Your task to perform on an android device: Open Chrome and go to settings Image 0: 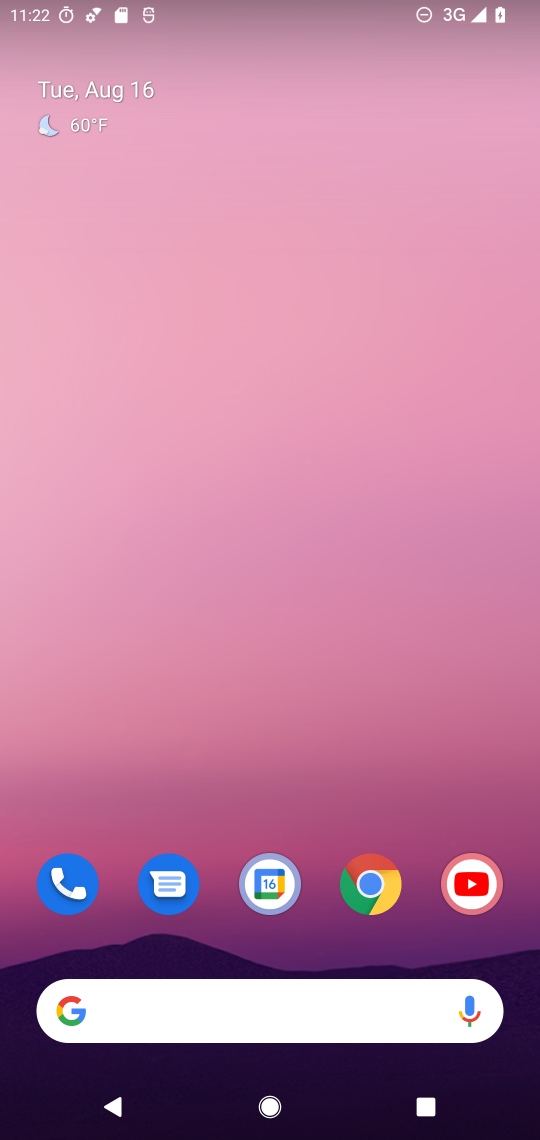
Step 0: click (365, 879)
Your task to perform on an android device: Open Chrome and go to settings Image 1: 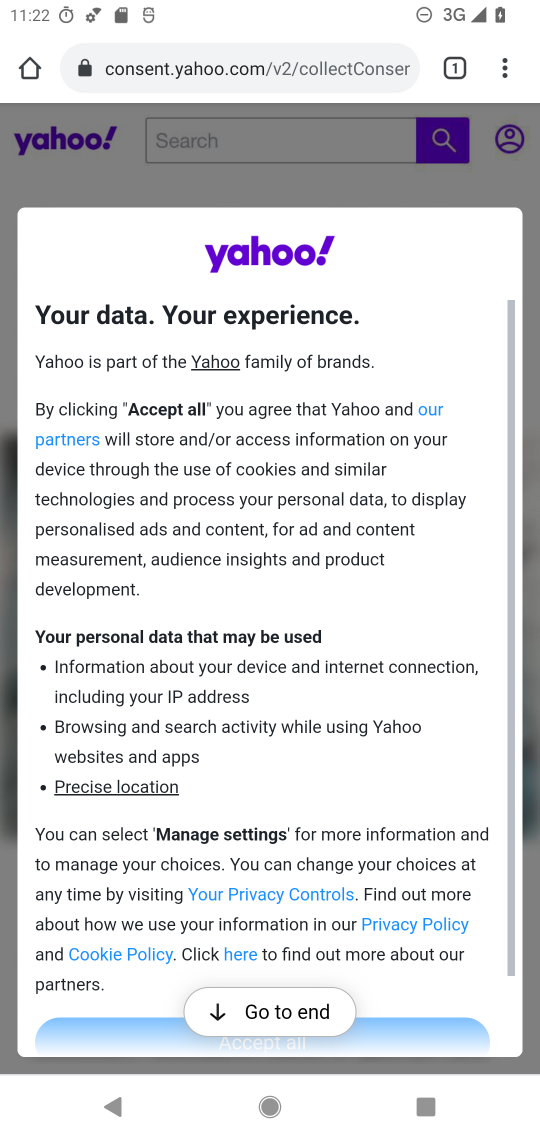
Step 1: click (502, 73)
Your task to perform on an android device: Open Chrome and go to settings Image 2: 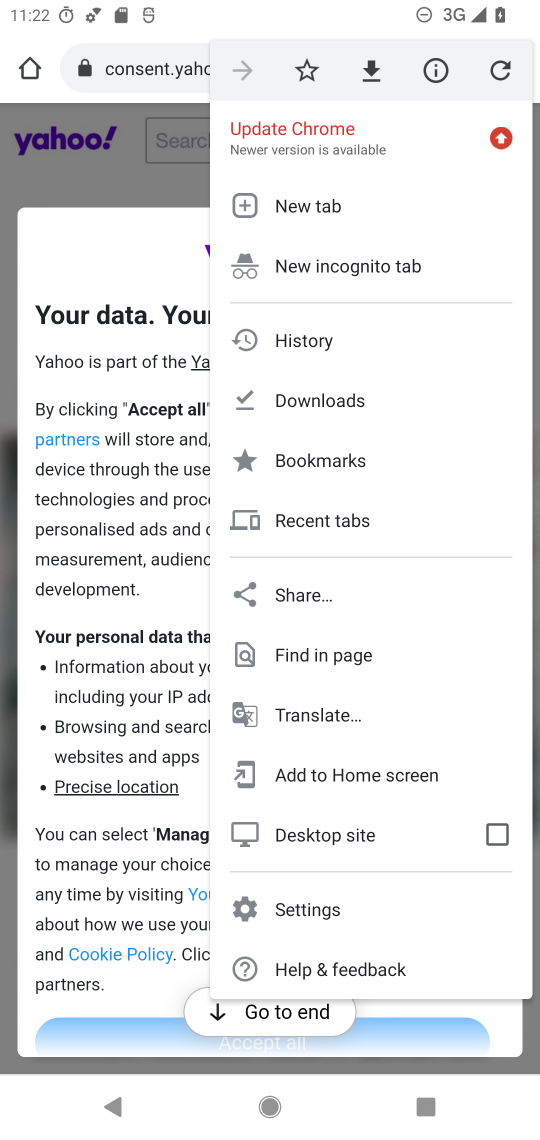
Step 2: click (275, 916)
Your task to perform on an android device: Open Chrome and go to settings Image 3: 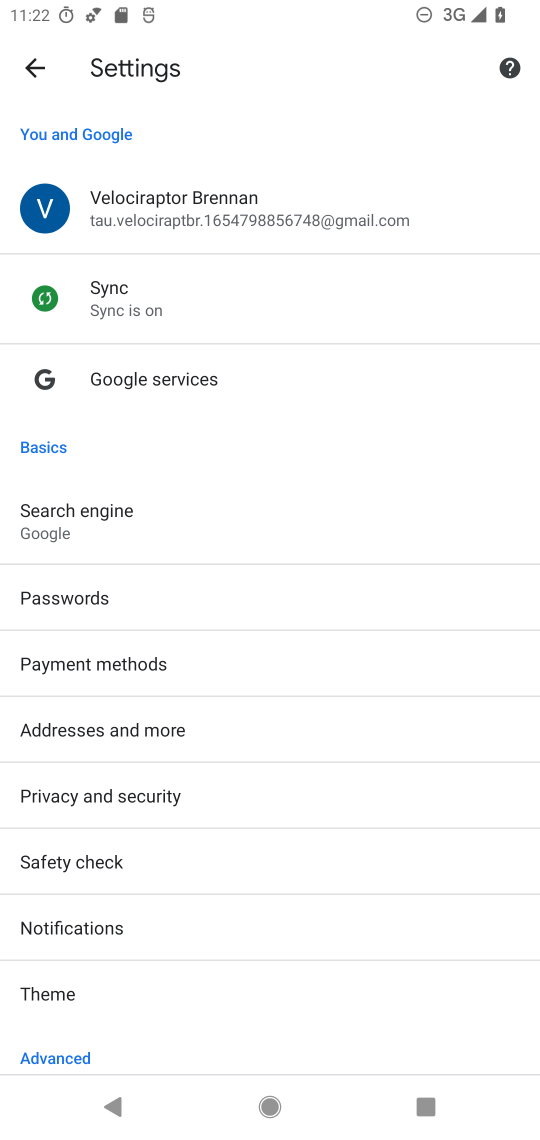
Step 3: task complete